Your task to perform on an android device: turn off improve location accuracy Image 0: 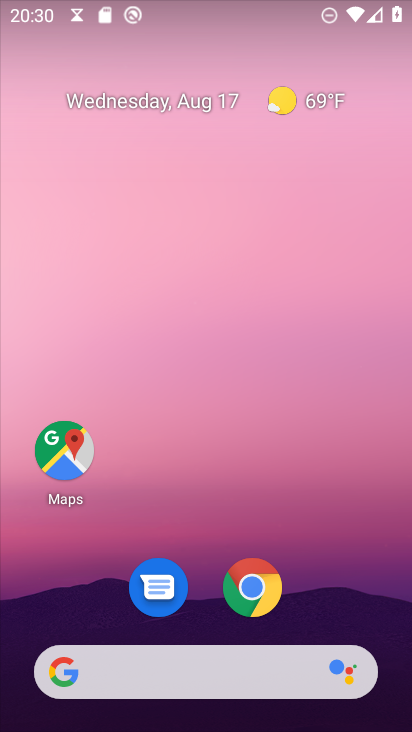
Step 0: drag from (28, 687) to (244, 328)
Your task to perform on an android device: turn off improve location accuracy Image 1: 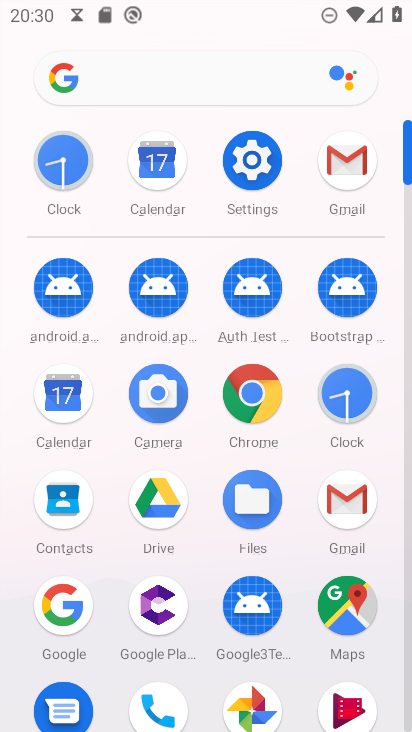
Step 1: click (245, 160)
Your task to perform on an android device: turn off improve location accuracy Image 2: 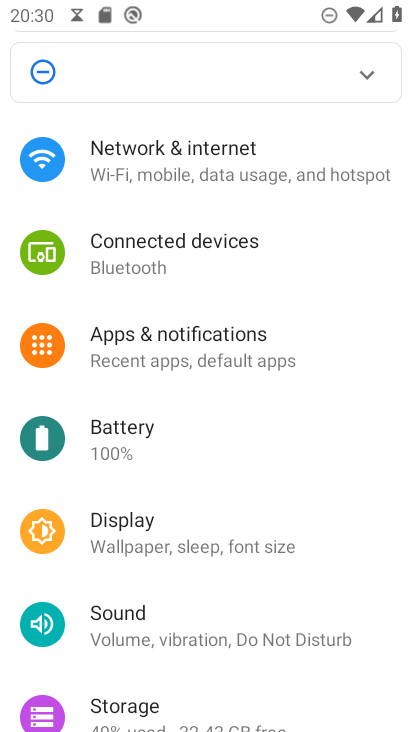
Step 2: drag from (345, 696) to (324, 459)
Your task to perform on an android device: turn off improve location accuracy Image 3: 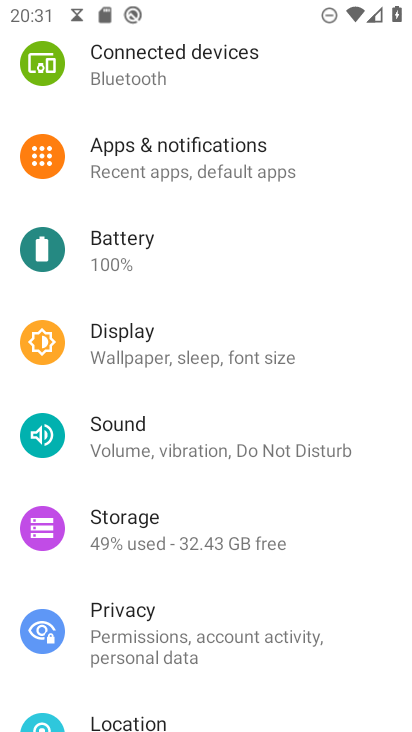
Step 3: drag from (339, 702) to (321, 543)
Your task to perform on an android device: turn off improve location accuracy Image 4: 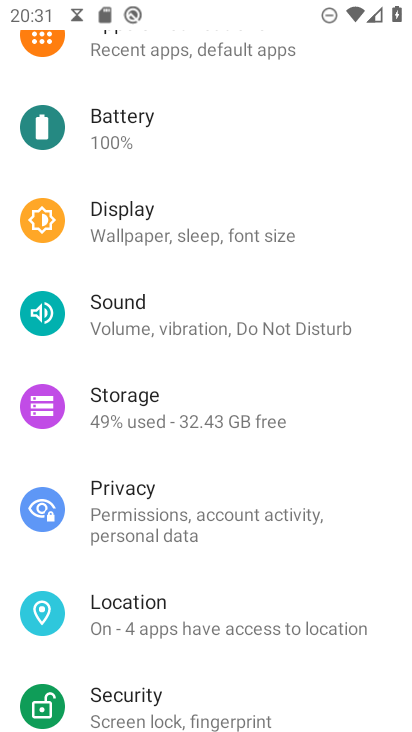
Step 4: click (123, 610)
Your task to perform on an android device: turn off improve location accuracy Image 5: 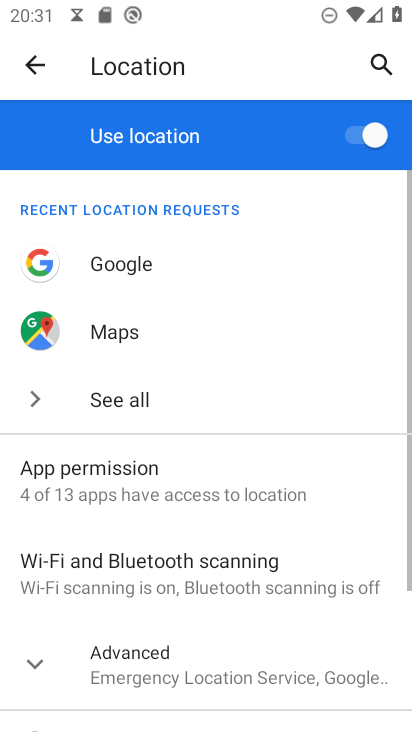
Step 5: click (378, 140)
Your task to perform on an android device: turn off improve location accuracy Image 6: 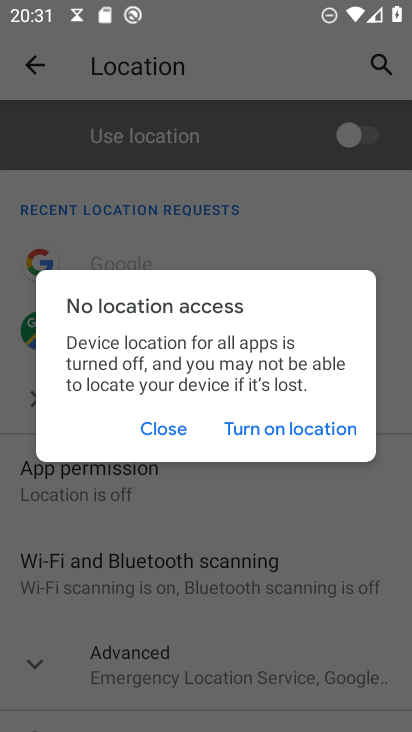
Step 6: task complete